Your task to perform on an android device: Open sound settings Image 0: 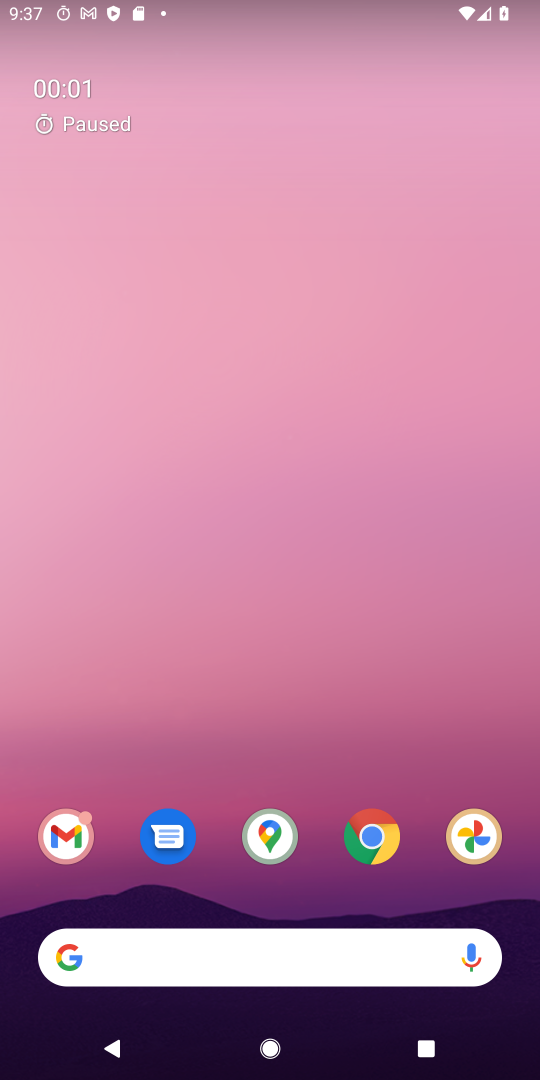
Step 0: press home button
Your task to perform on an android device: Open sound settings Image 1: 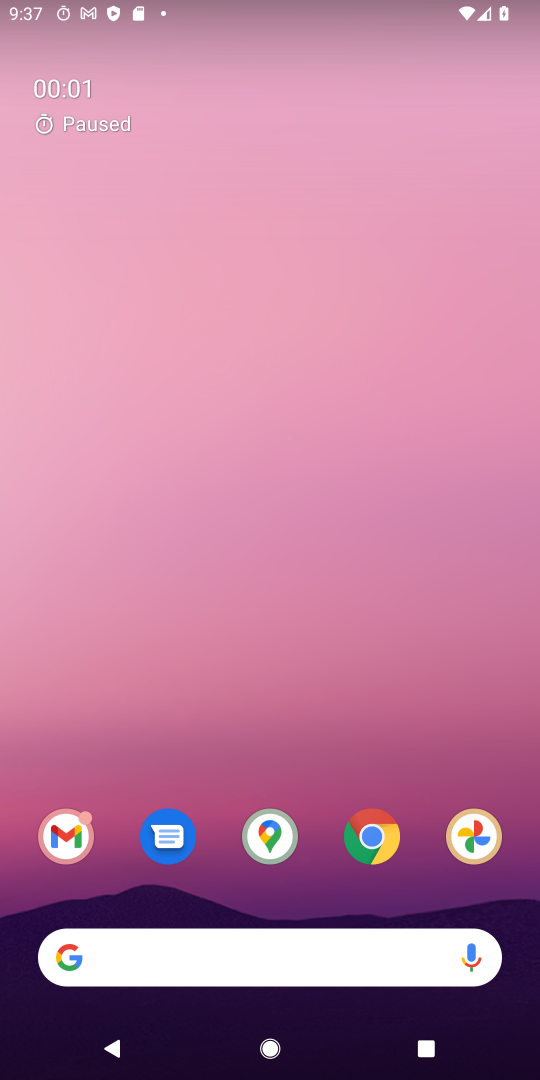
Step 1: press home button
Your task to perform on an android device: Open sound settings Image 2: 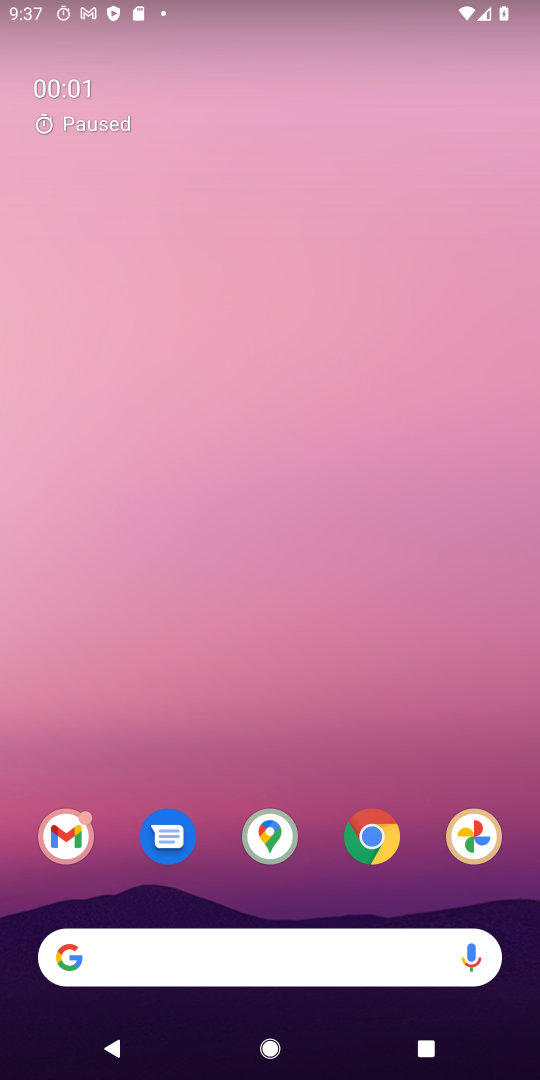
Step 2: drag from (469, 888) to (205, 98)
Your task to perform on an android device: Open sound settings Image 3: 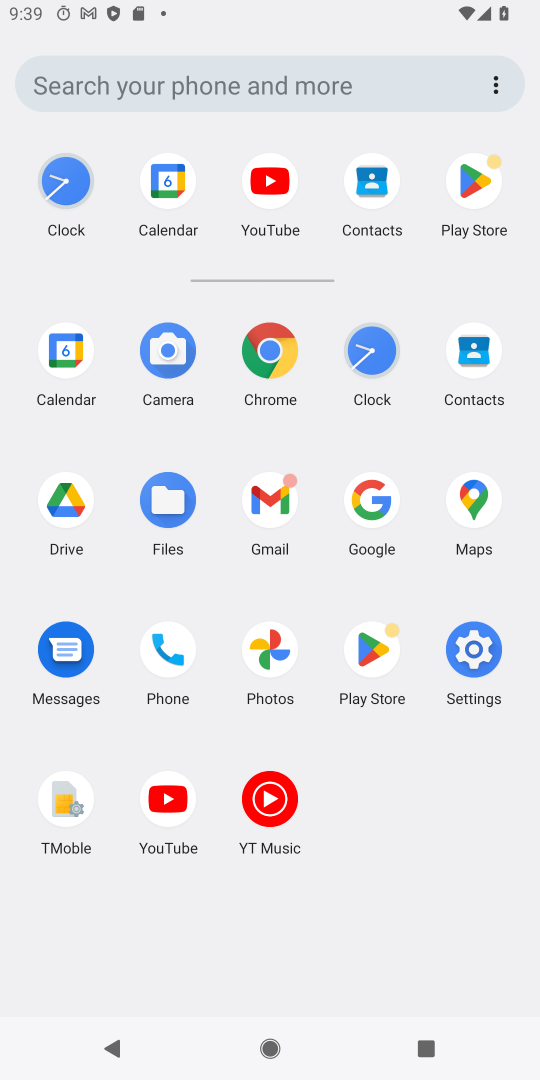
Step 3: click (458, 683)
Your task to perform on an android device: Open sound settings Image 4: 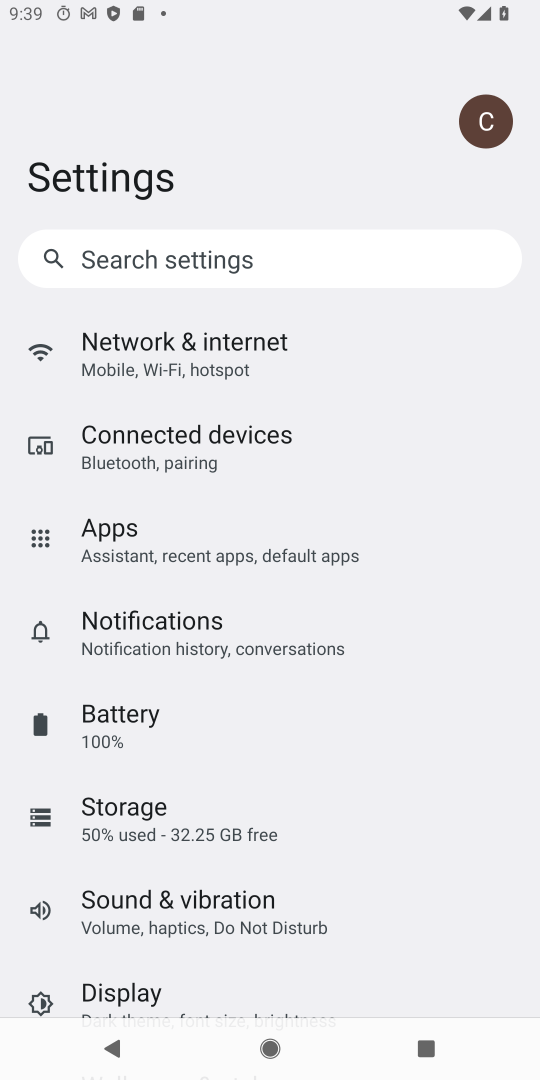
Step 4: click (190, 910)
Your task to perform on an android device: Open sound settings Image 5: 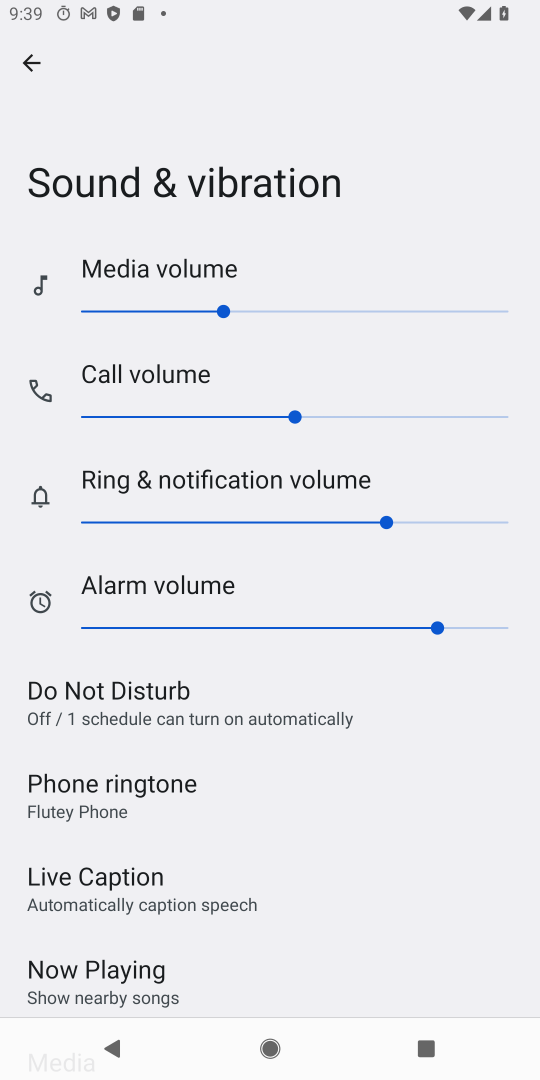
Step 5: task complete